Your task to perform on an android device: Open display settings Image 0: 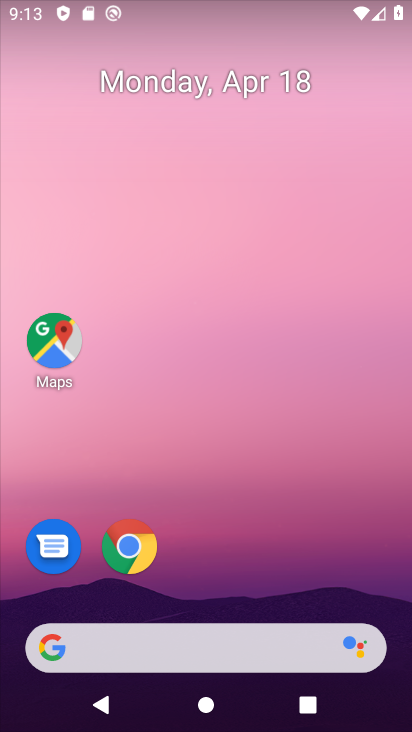
Step 0: drag from (332, 567) to (287, 46)
Your task to perform on an android device: Open display settings Image 1: 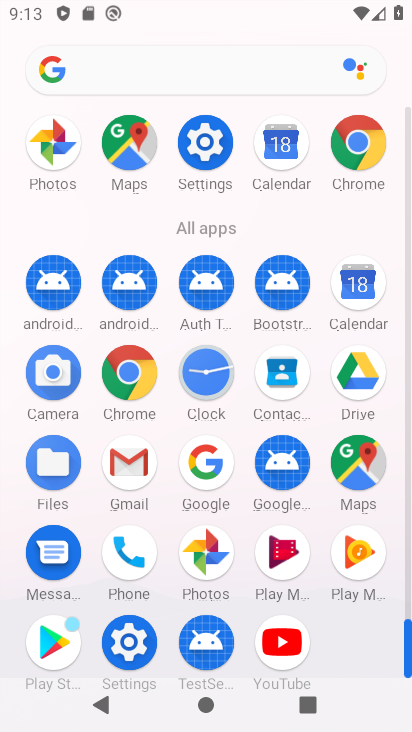
Step 1: click (216, 156)
Your task to perform on an android device: Open display settings Image 2: 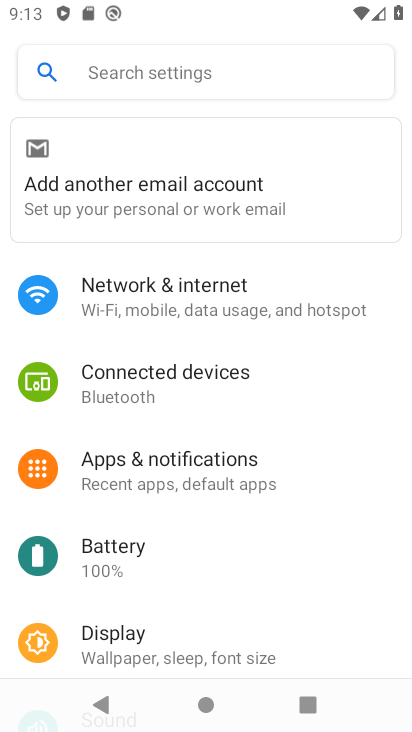
Step 2: click (170, 648)
Your task to perform on an android device: Open display settings Image 3: 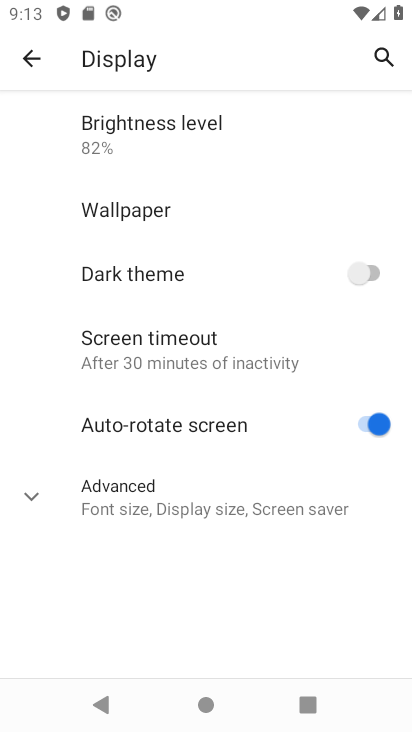
Step 3: task complete